Your task to perform on an android device: snooze an email in the gmail app Image 0: 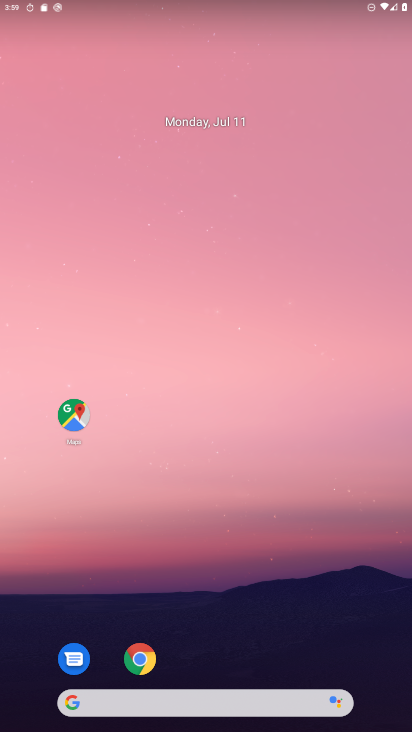
Step 0: click (133, 92)
Your task to perform on an android device: snooze an email in the gmail app Image 1: 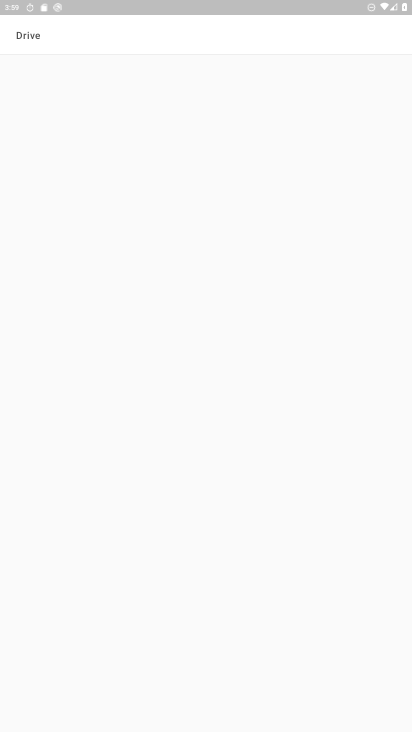
Step 1: press home button
Your task to perform on an android device: snooze an email in the gmail app Image 2: 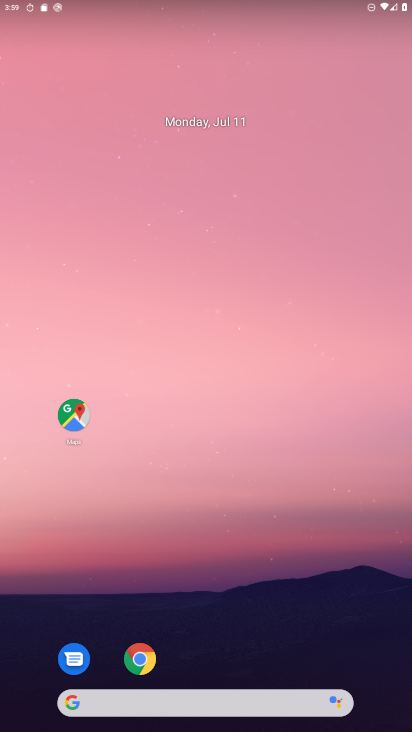
Step 2: drag from (281, 649) to (226, 305)
Your task to perform on an android device: snooze an email in the gmail app Image 3: 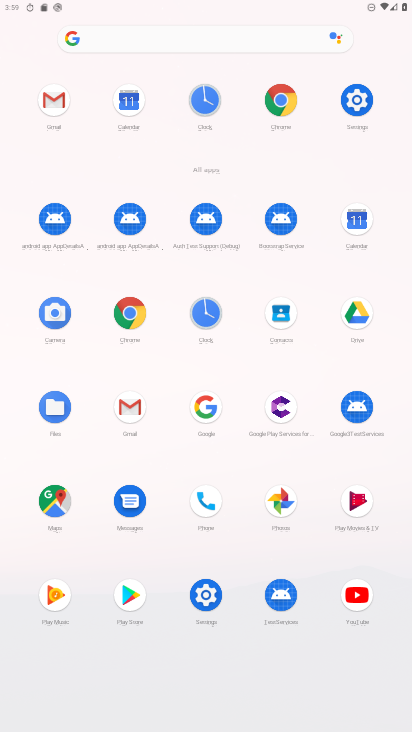
Step 3: click (126, 402)
Your task to perform on an android device: snooze an email in the gmail app Image 4: 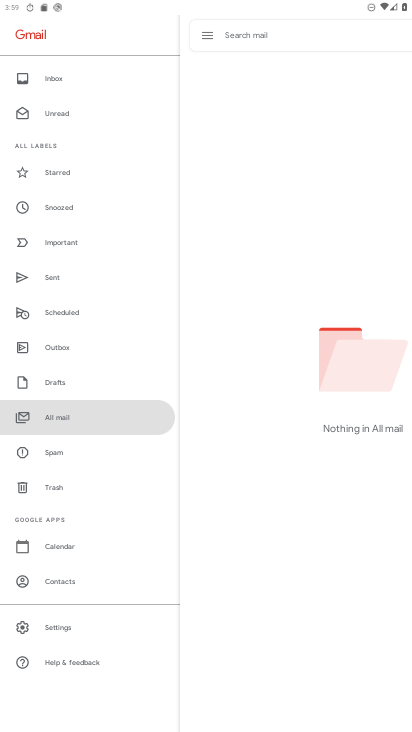
Step 4: click (43, 204)
Your task to perform on an android device: snooze an email in the gmail app Image 5: 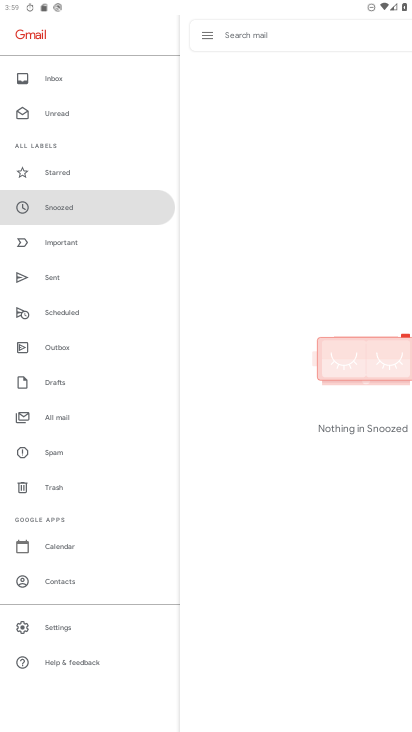
Step 5: task complete